Your task to perform on an android device: Go to display settings Image 0: 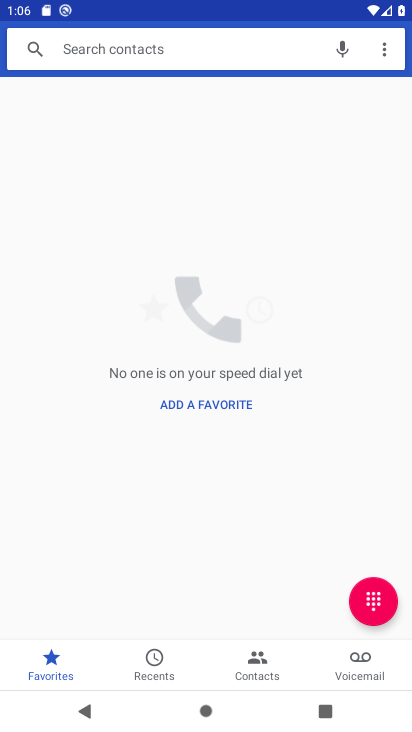
Step 0: press home button
Your task to perform on an android device: Go to display settings Image 1: 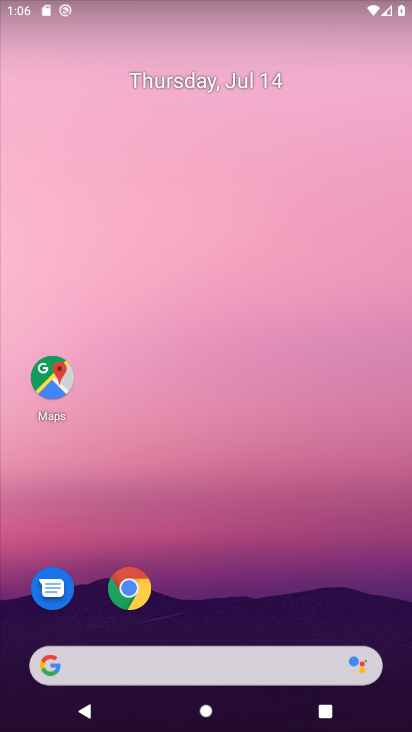
Step 1: drag from (294, 605) to (215, 0)
Your task to perform on an android device: Go to display settings Image 2: 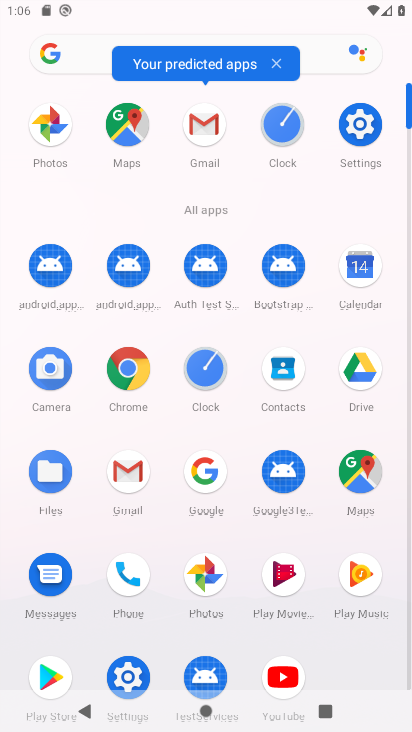
Step 2: click (362, 141)
Your task to perform on an android device: Go to display settings Image 3: 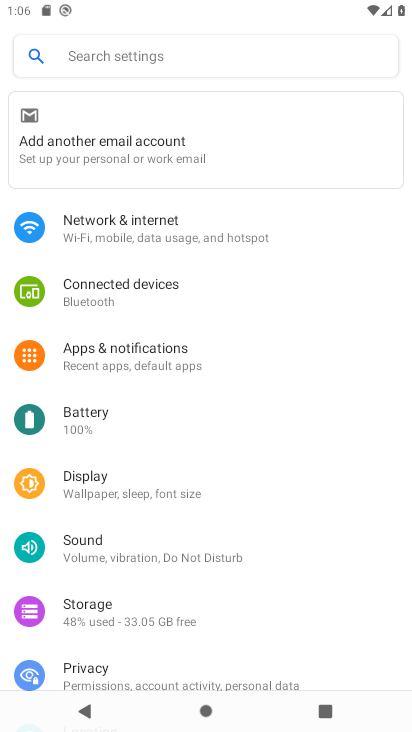
Step 3: click (102, 473)
Your task to perform on an android device: Go to display settings Image 4: 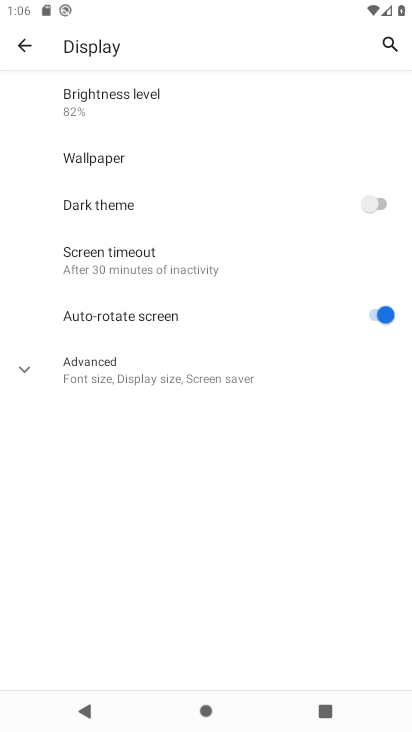
Step 4: task complete